Your task to perform on an android device: Open calendar and show me the first week of next month Image 0: 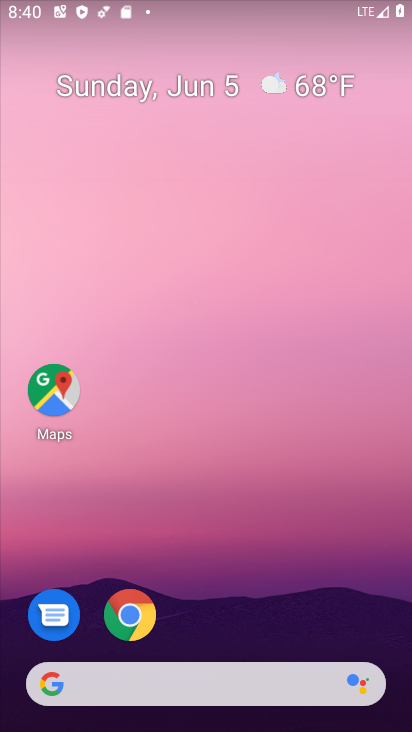
Step 0: drag from (155, 679) to (203, 54)
Your task to perform on an android device: Open calendar and show me the first week of next month Image 1: 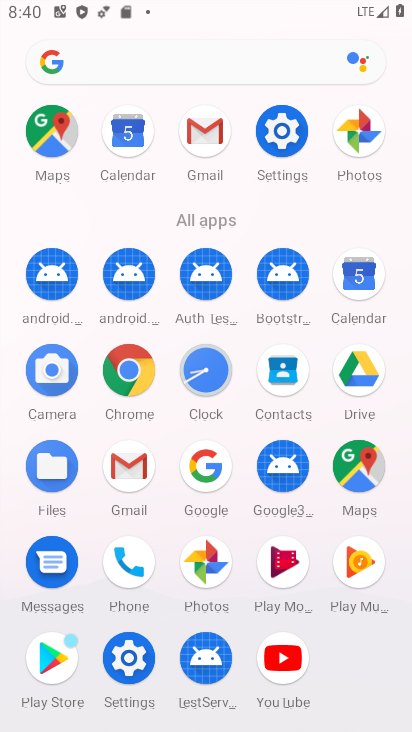
Step 1: click (364, 261)
Your task to perform on an android device: Open calendar and show me the first week of next month Image 2: 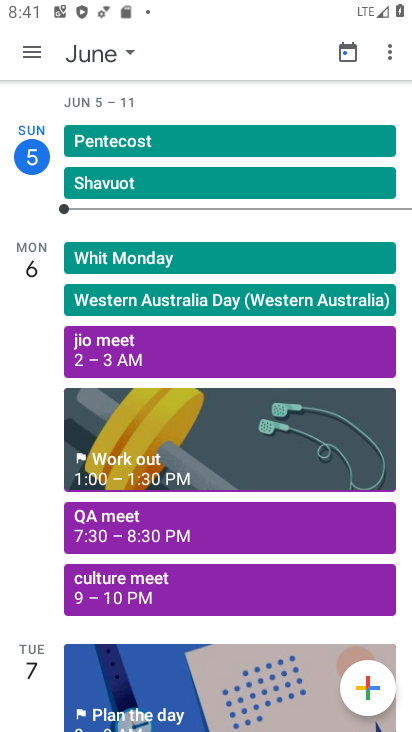
Step 2: click (34, 53)
Your task to perform on an android device: Open calendar and show me the first week of next month Image 3: 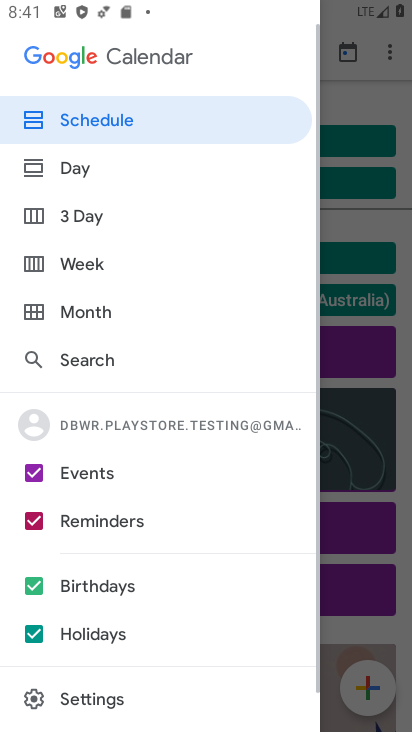
Step 3: click (74, 321)
Your task to perform on an android device: Open calendar and show me the first week of next month Image 4: 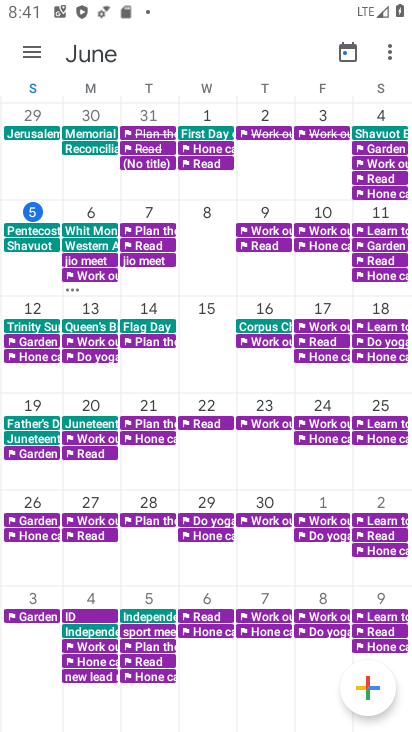
Step 4: task complete